Your task to perform on an android device: Search for Mexican restaurants on Maps Image 0: 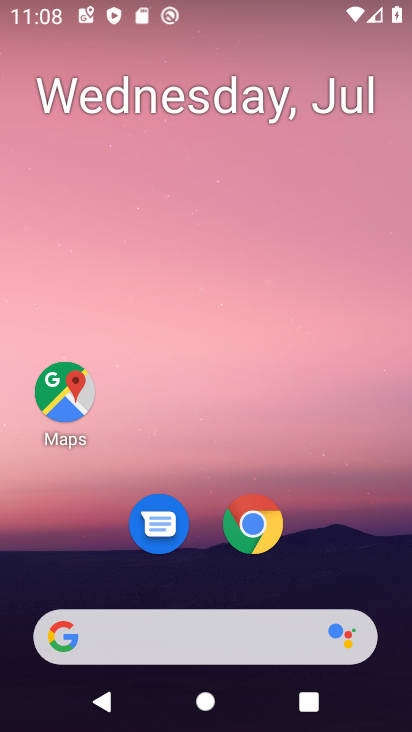
Step 0: click (69, 388)
Your task to perform on an android device: Search for Mexican restaurants on Maps Image 1: 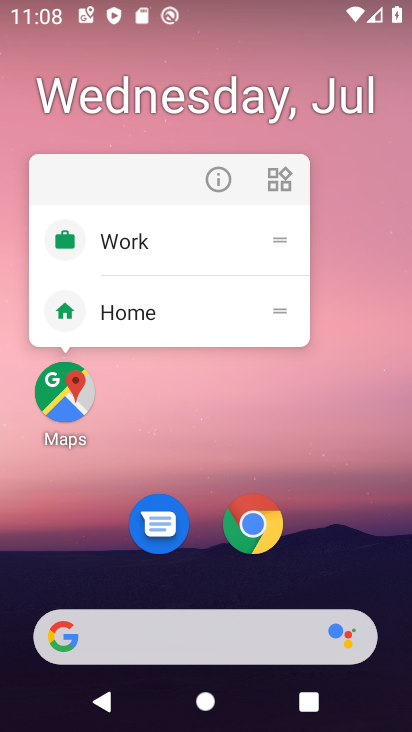
Step 1: click (66, 395)
Your task to perform on an android device: Search for Mexican restaurants on Maps Image 2: 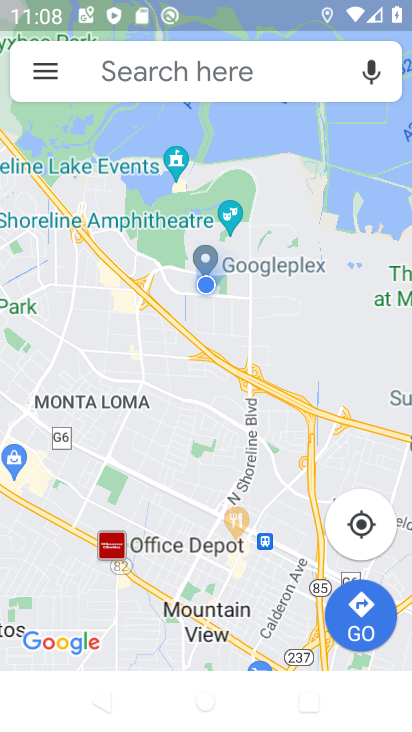
Step 2: click (156, 66)
Your task to perform on an android device: Search for Mexican restaurants on Maps Image 3: 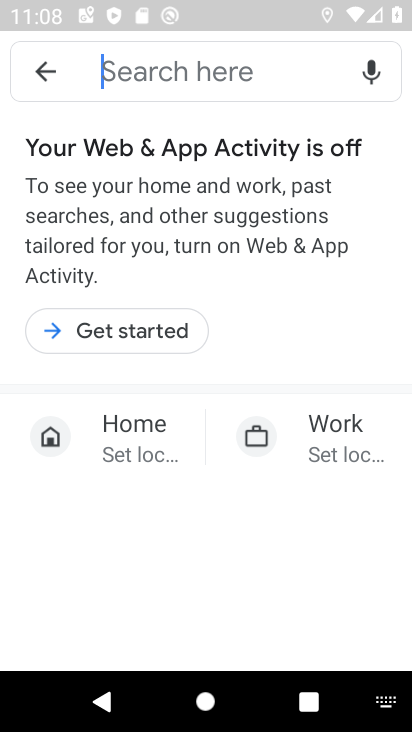
Step 3: type "Mexican restaurants"
Your task to perform on an android device: Search for Mexican restaurants on Maps Image 4: 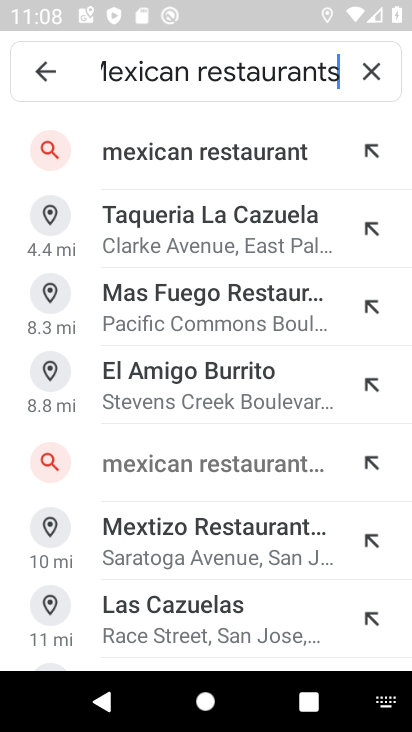
Step 4: click (245, 156)
Your task to perform on an android device: Search for Mexican restaurants on Maps Image 5: 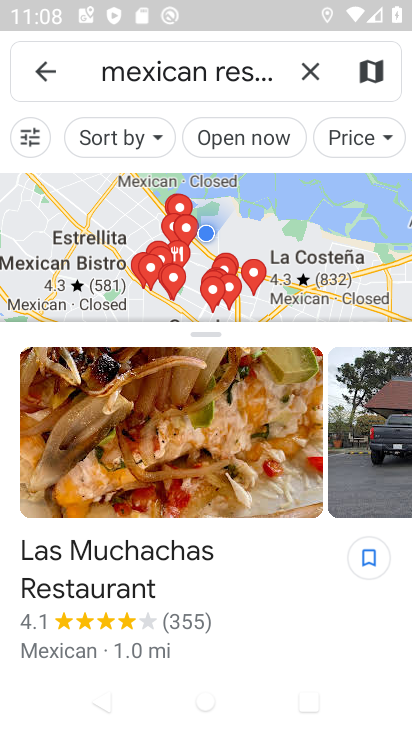
Step 5: task complete